Your task to perform on an android device: What's the weather going to be tomorrow? Image 0: 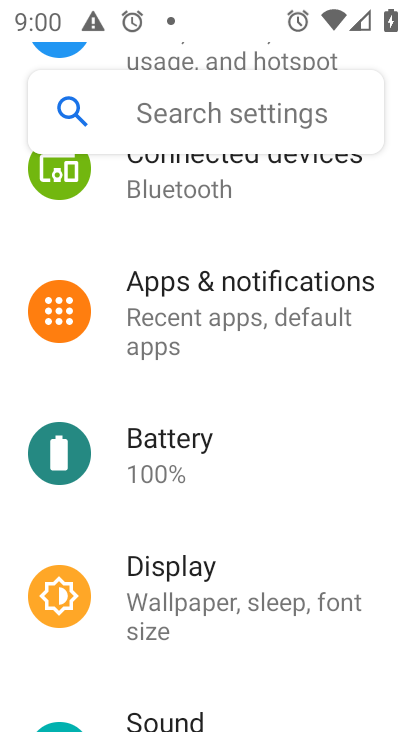
Step 0: press home button
Your task to perform on an android device: What's the weather going to be tomorrow? Image 1: 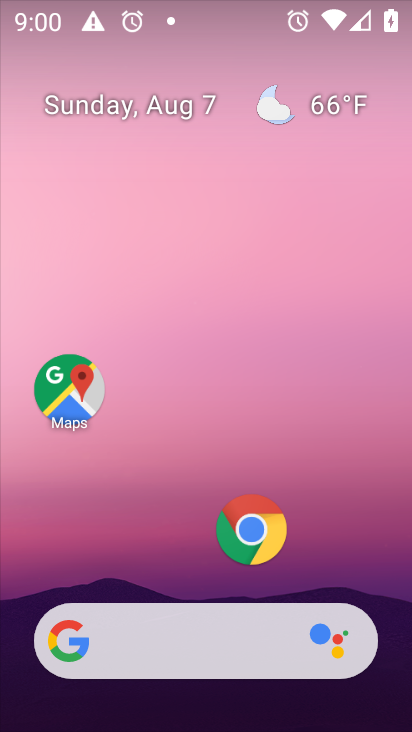
Step 1: click (314, 106)
Your task to perform on an android device: What's the weather going to be tomorrow? Image 2: 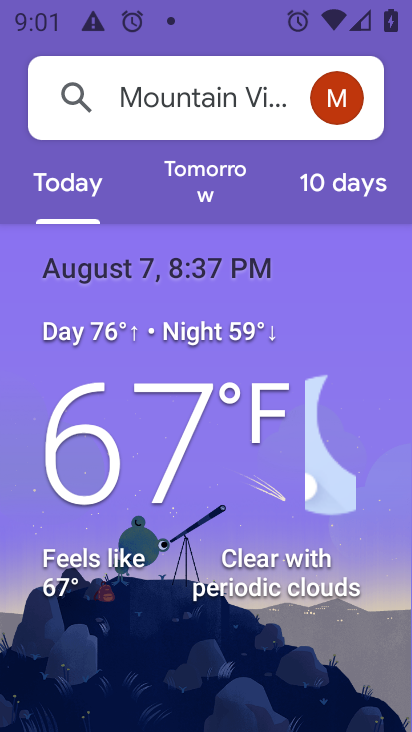
Step 2: click (186, 179)
Your task to perform on an android device: What's the weather going to be tomorrow? Image 3: 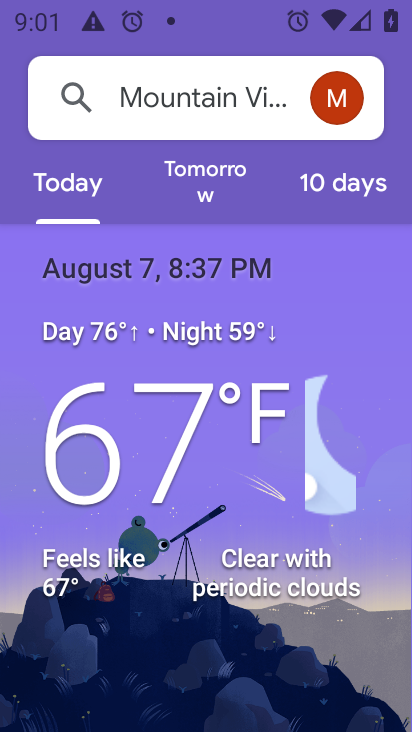
Step 3: click (210, 211)
Your task to perform on an android device: What's the weather going to be tomorrow? Image 4: 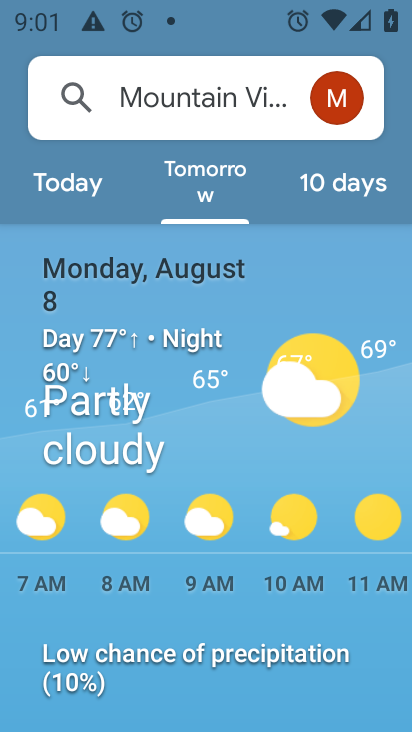
Step 4: task complete